Your task to perform on an android device: toggle translation in the chrome app Image 0: 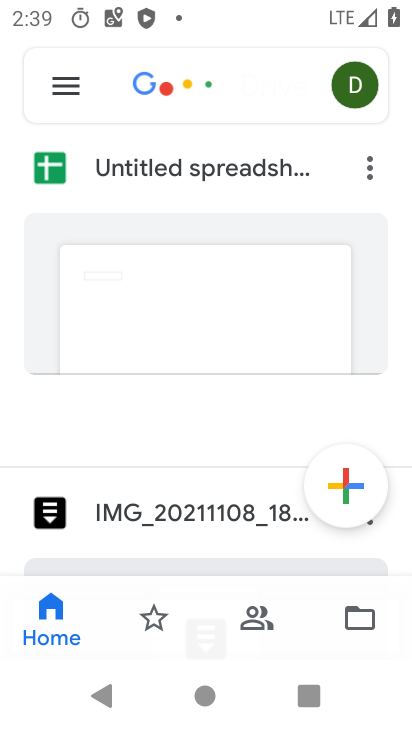
Step 0: press home button
Your task to perform on an android device: toggle translation in the chrome app Image 1: 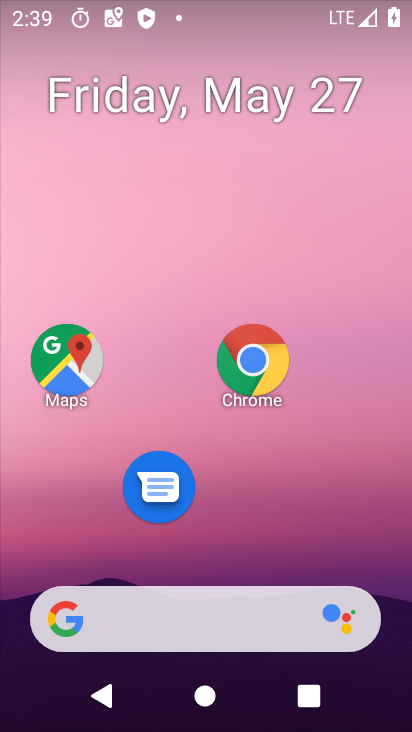
Step 1: click (251, 356)
Your task to perform on an android device: toggle translation in the chrome app Image 2: 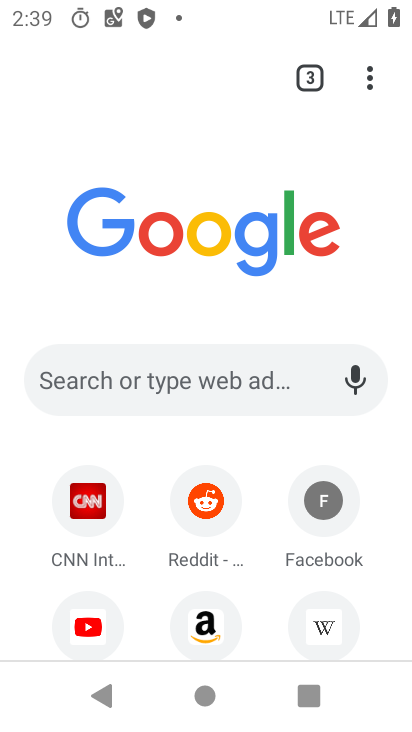
Step 2: click (361, 69)
Your task to perform on an android device: toggle translation in the chrome app Image 3: 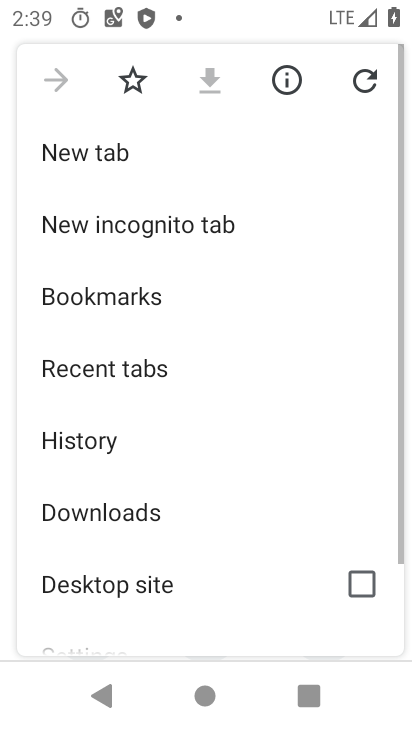
Step 3: drag from (228, 513) to (276, 104)
Your task to perform on an android device: toggle translation in the chrome app Image 4: 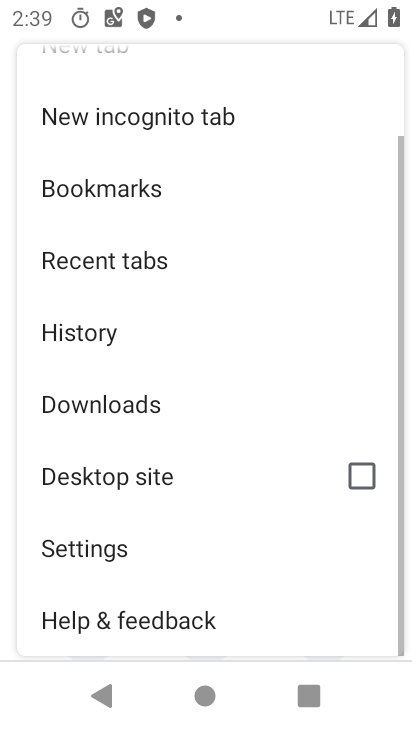
Step 4: click (126, 538)
Your task to perform on an android device: toggle translation in the chrome app Image 5: 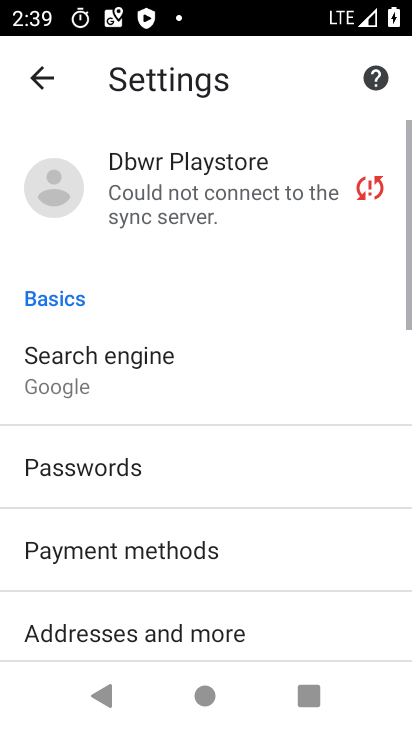
Step 5: drag from (228, 579) to (256, 129)
Your task to perform on an android device: toggle translation in the chrome app Image 6: 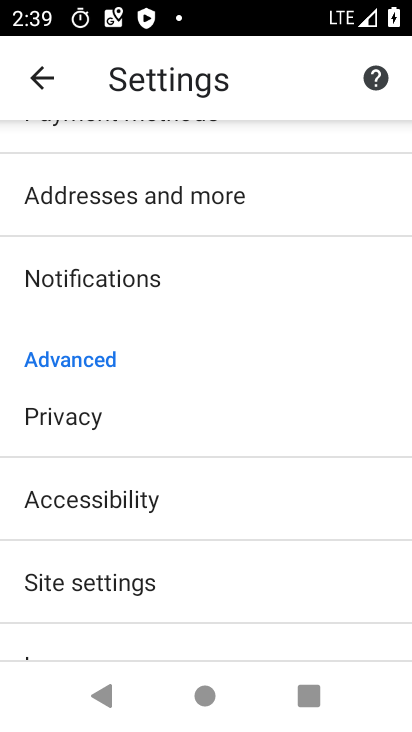
Step 6: drag from (203, 625) to (210, 316)
Your task to perform on an android device: toggle translation in the chrome app Image 7: 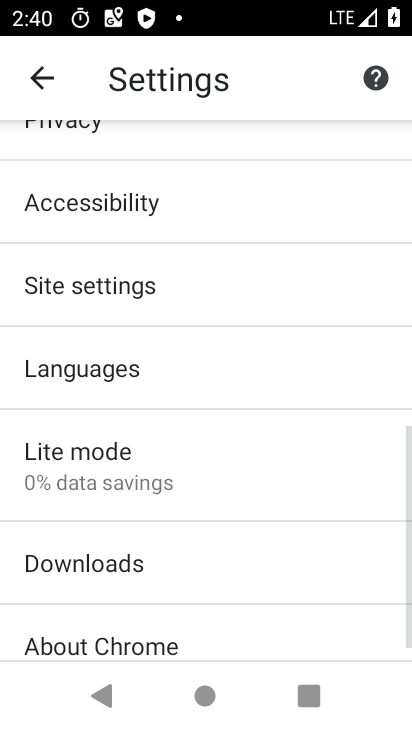
Step 7: click (142, 387)
Your task to perform on an android device: toggle translation in the chrome app Image 8: 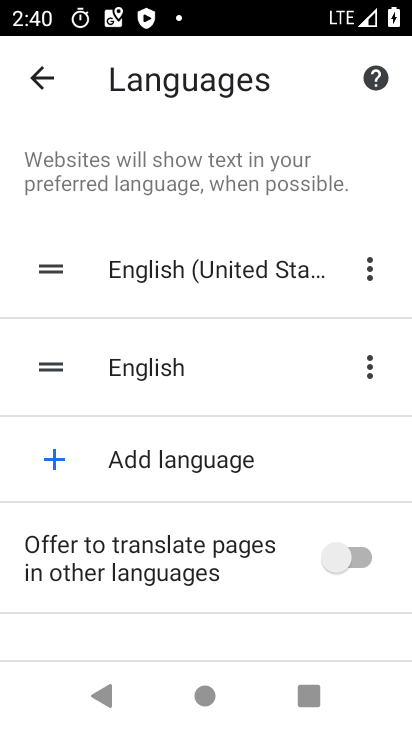
Step 8: click (346, 558)
Your task to perform on an android device: toggle translation in the chrome app Image 9: 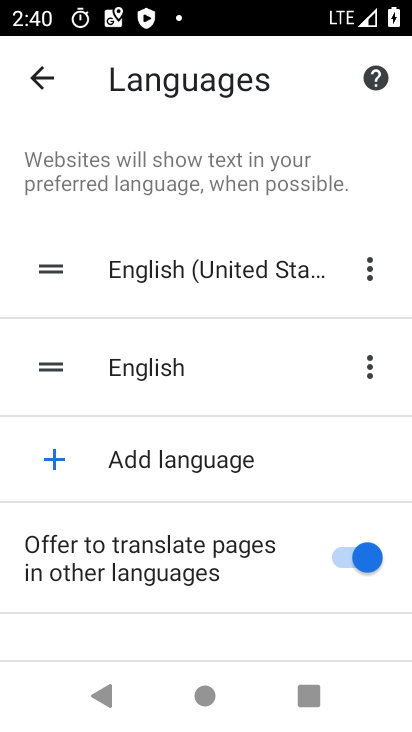
Step 9: task complete